Your task to perform on an android device: open device folders in google photos Image 0: 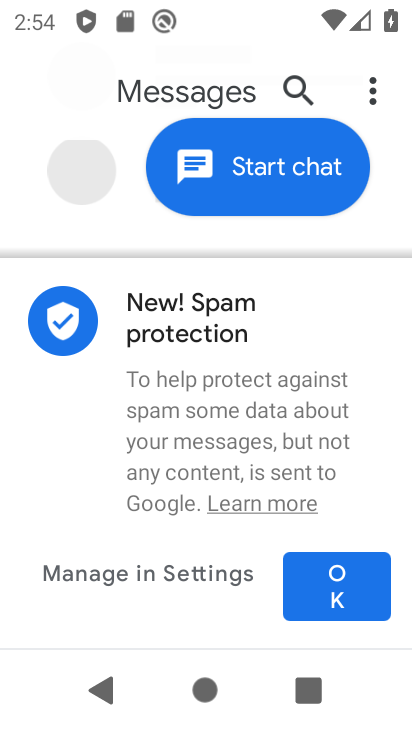
Step 0: press home button
Your task to perform on an android device: open device folders in google photos Image 1: 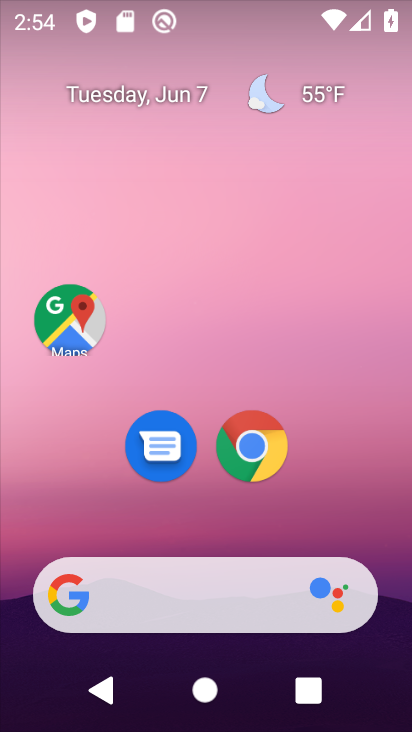
Step 1: drag from (219, 552) to (246, 3)
Your task to perform on an android device: open device folders in google photos Image 2: 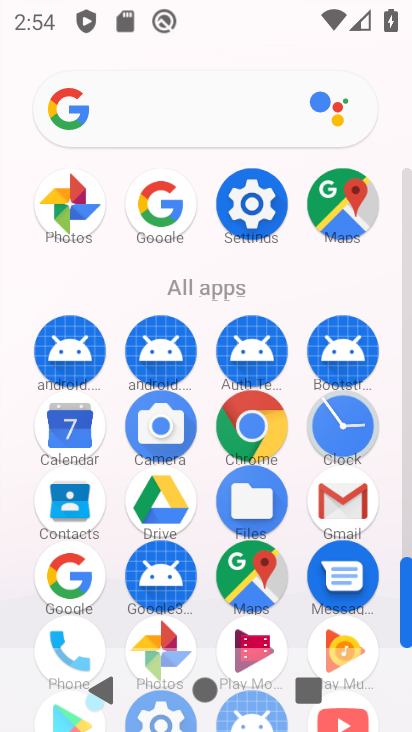
Step 2: click (141, 641)
Your task to perform on an android device: open device folders in google photos Image 3: 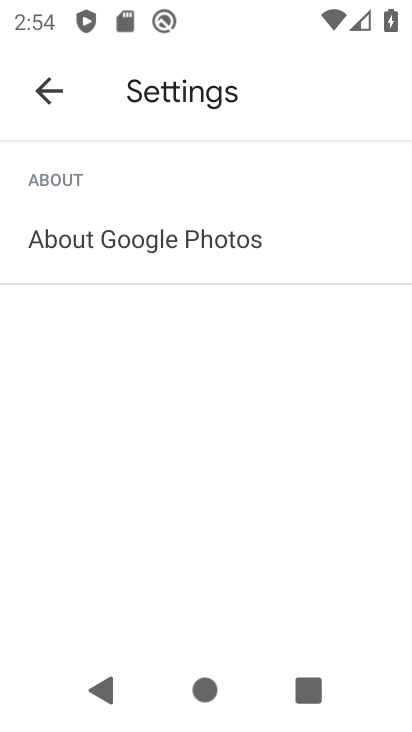
Step 3: click (27, 93)
Your task to perform on an android device: open device folders in google photos Image 4: 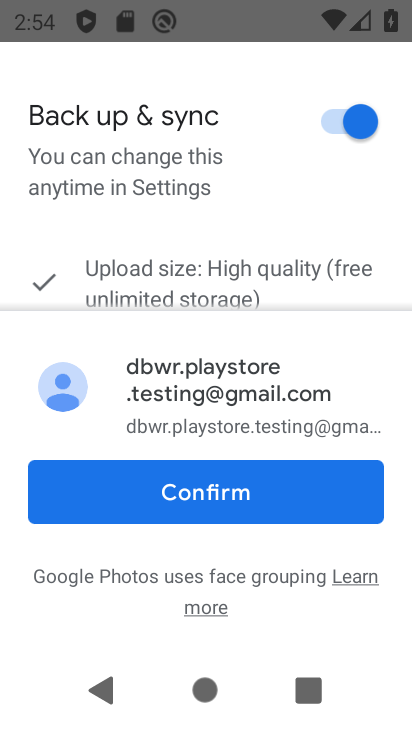
Step 4: click (164, 480)
Your task to perform on an android device: open device folders in google photos Image 5: 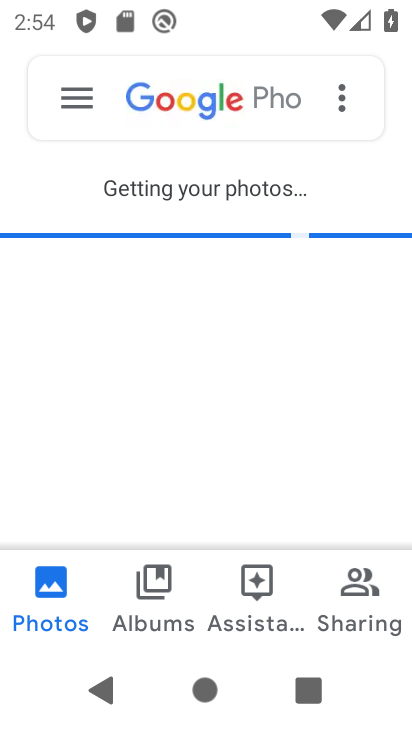
Step 5: drag from (60, 108) to (59, 249)
Your task to perform on an android device: open device folders in google photos Image 6: 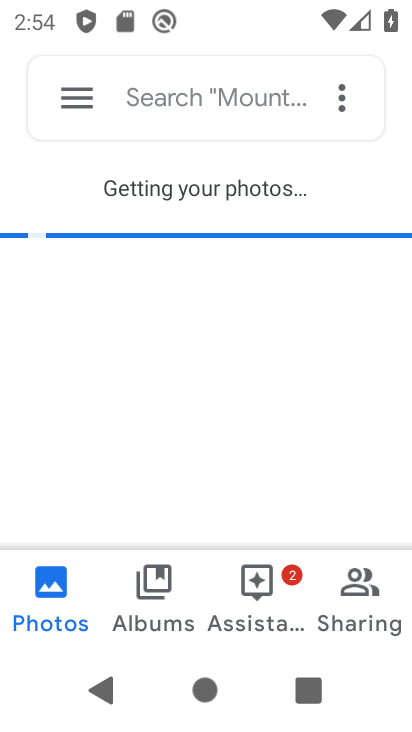
Step 6: click (57, 103)
Your task to perform on an android device: open device folders in google photos Image 7: 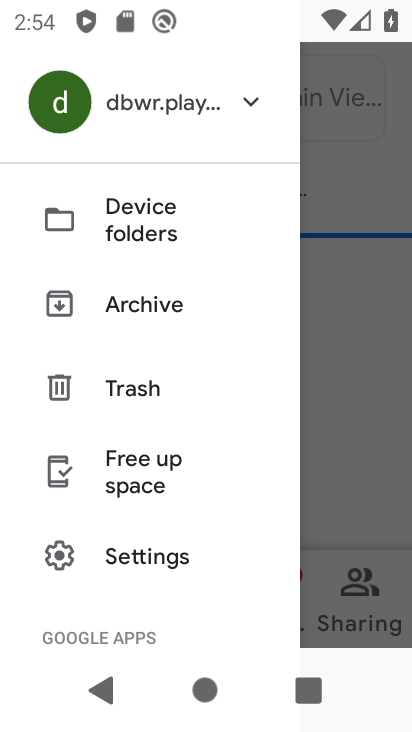
Step 7: click (81, 213)
Your task to perform on an android device: open device folders in google photos Image 8: 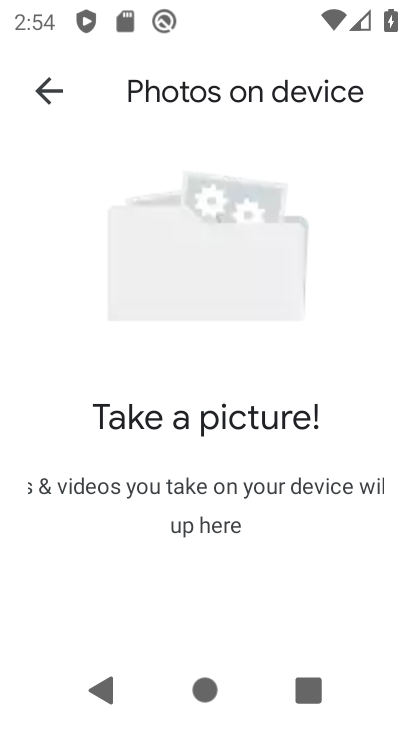
Step 8: task complete